Your task to perform on an android device: Go to internet settings Image 0: 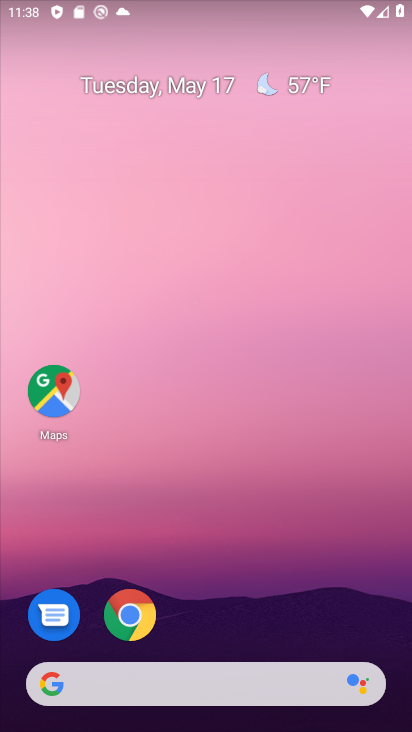
Step 0: drag from (303, 610) to (281, 107)
Your task to perform on an android device: Go to internet settings Image 1: 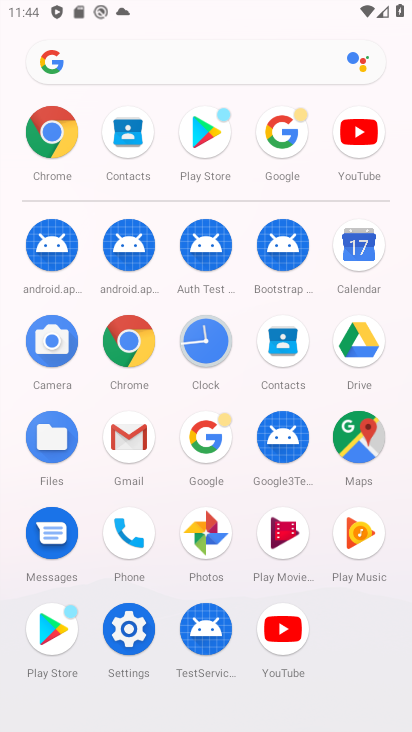
Step 1: click (121, 641)
Your task to perform on an android device: Go to internet settings Image 2: 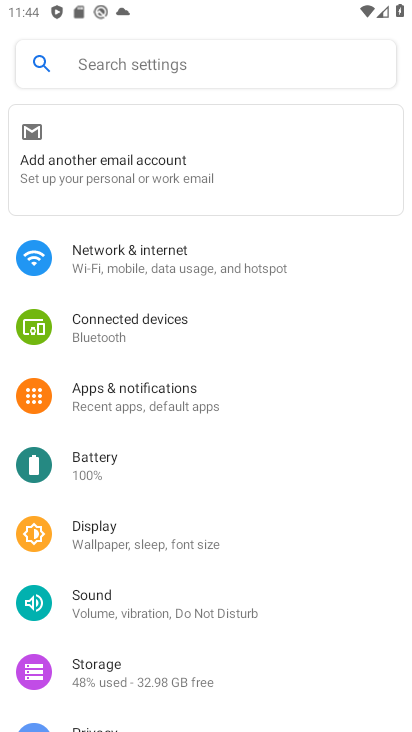
Step 2: click (135, 267)
Your task to perform on an android device: Go to internet settings Image 3: 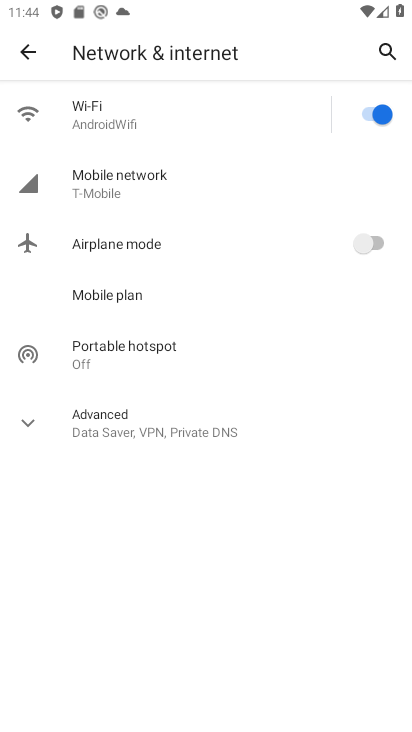
Step 3: task complete